Your task to perform on an android device: find photos in the google photos app Image 0: 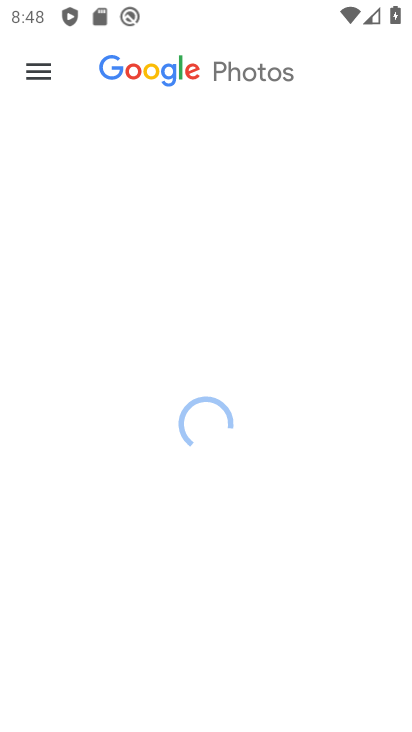
Step 0: press home button
Your task to perform on an android device: find photos in the google photos app Image 1: 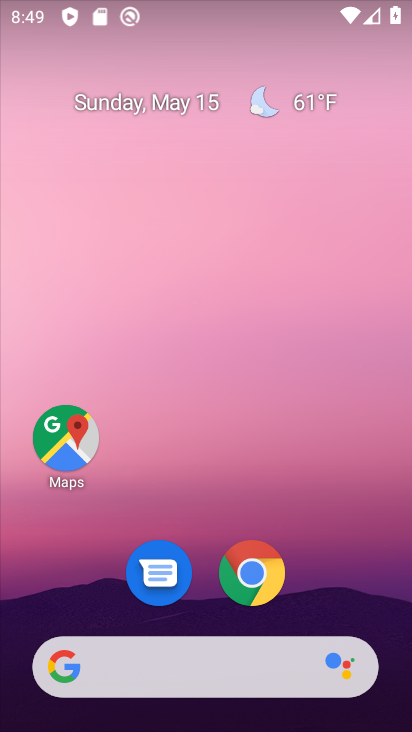
Step 1: drag from (143, 301) to (175, 169)
Your task to perform on an android device: find photos in the google photos app Image 2: 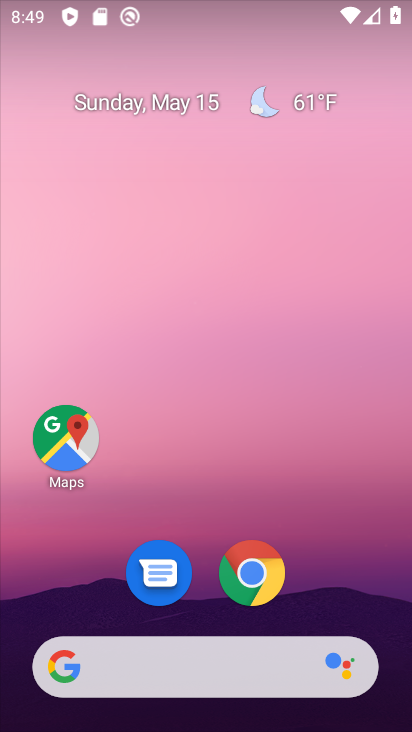
Step 2: press home button
Your task to perform on an android device: find photos in the google photos app Image 3: 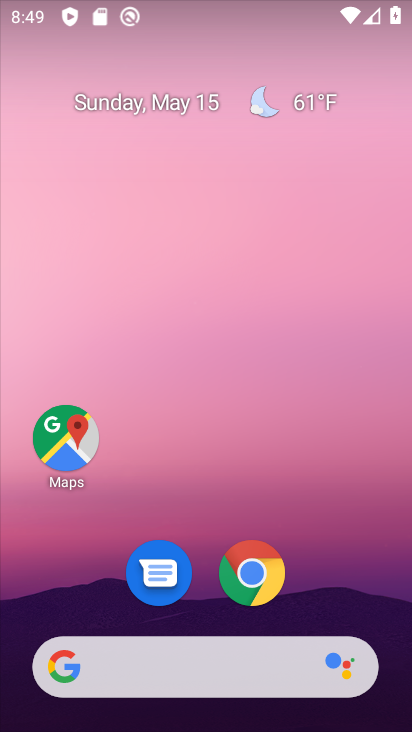
Step 3: click (160, 530)
Your task to perform on an android device: find photos in the google photos app Image 4: 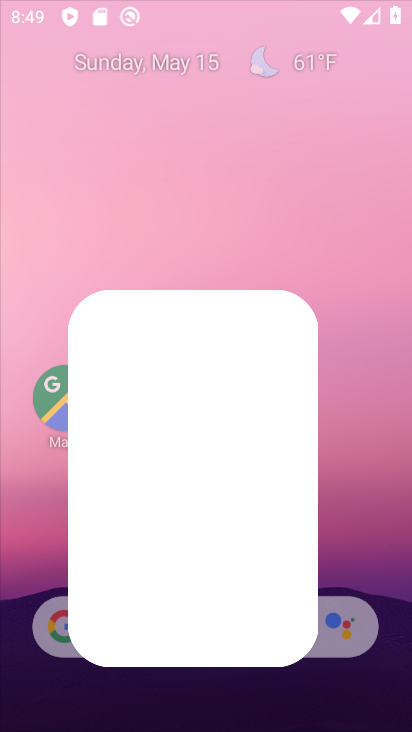
Step 4: drag from (38, 720) to (305, 101)
Your task to perform on an android device: find photos in the google photos app Image 5: 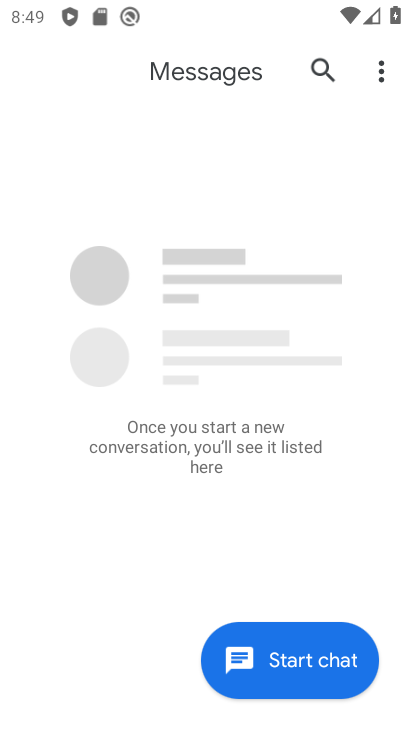
Step 5: press home button
Your task to perform on an android device: find photos in the google photos app Image 6: 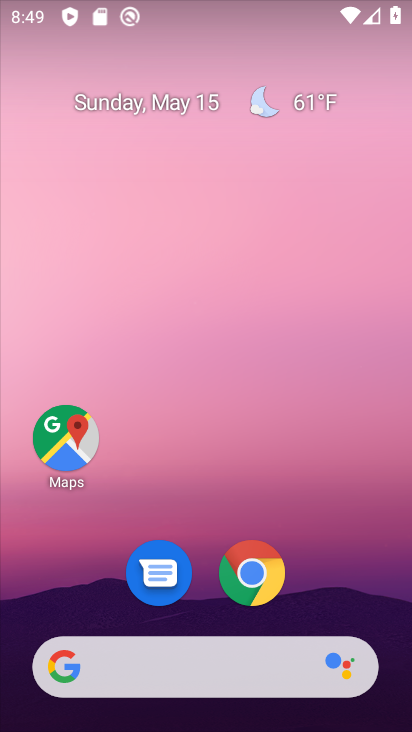
Step 6: drag from (15, 658) to (279, 87)
Your task to perform on an android device: find photos in the google photos app Image 7: 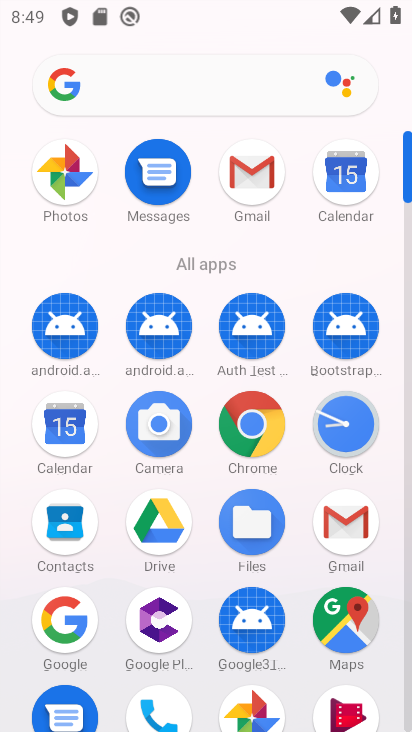
Step 7: click (241, 711)
Your task to perform on an android device: find photos in the google photos app Image 8: 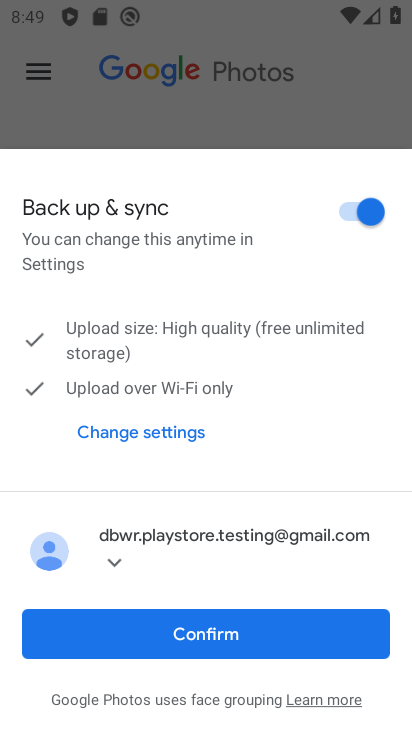
Step 8: click (219, 629)
Your task to perform on an android device: find photos in the google photos app Image 9: 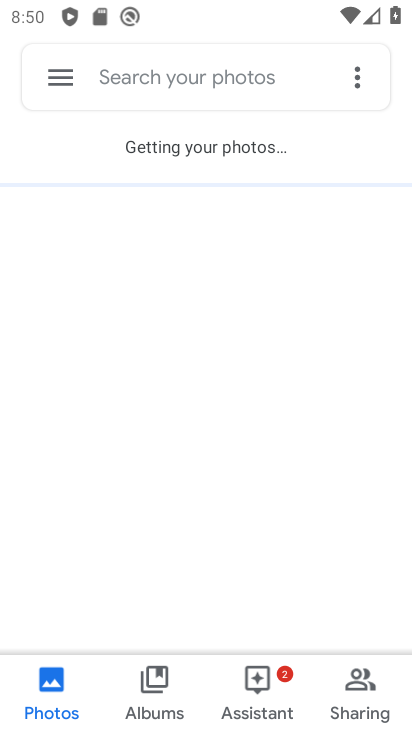
Step 9: task complete